Your task to perform on an android device: Open accessibility settings Image 0: 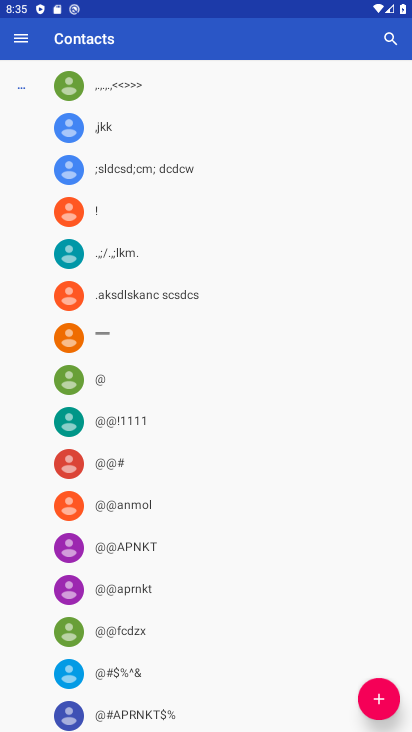
Step 0: press home button
Your task to perform on an android device: Open accessibility settings Image 1: 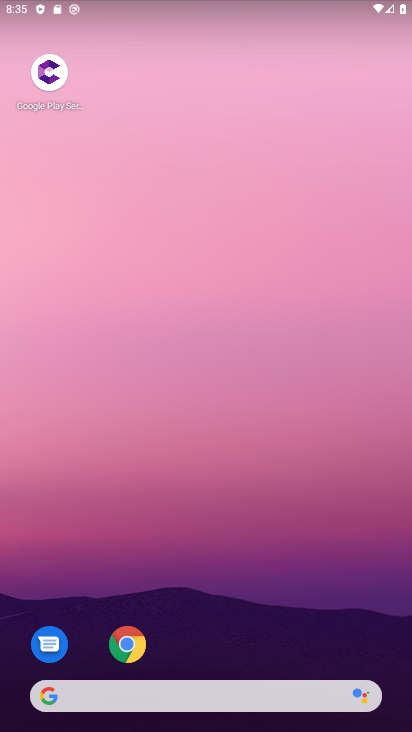
Step 1: drag from (200, 602) to (292, 85)
Your task to perform on an android device: Open accessibility settings Image 2: 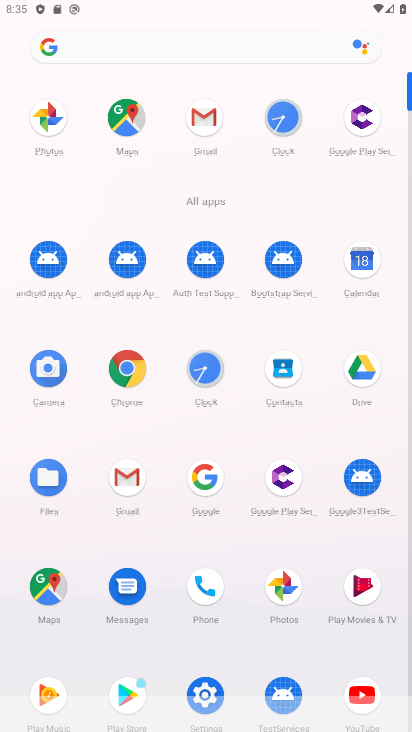
Step 2: click (204, 690)
Your task to perform on an android device: Open accessibility settings Image 3: 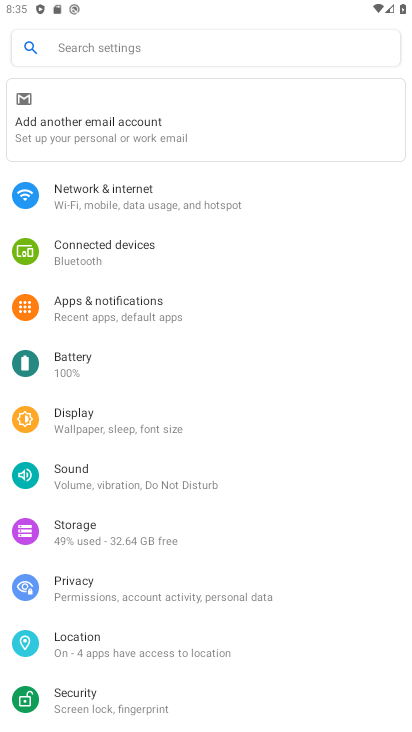
Step 3: drag from (196, 550) to (279, 158)
Your task to perform on an android device: Open accessibility settings Image 4: 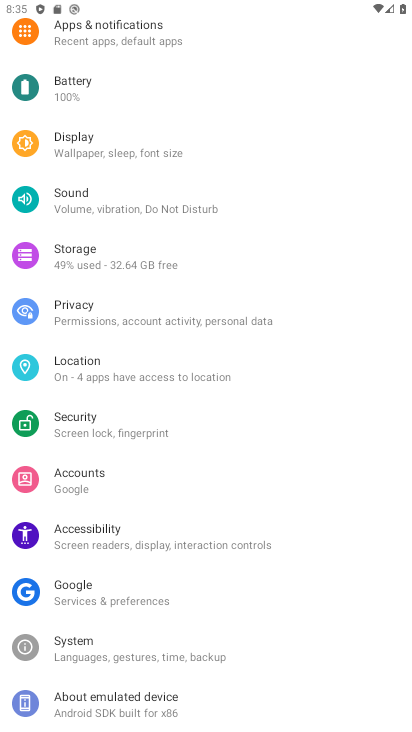
Step 4: click (173, 547)
Your task to perform on an android device: Open accessibility settings Image 5: 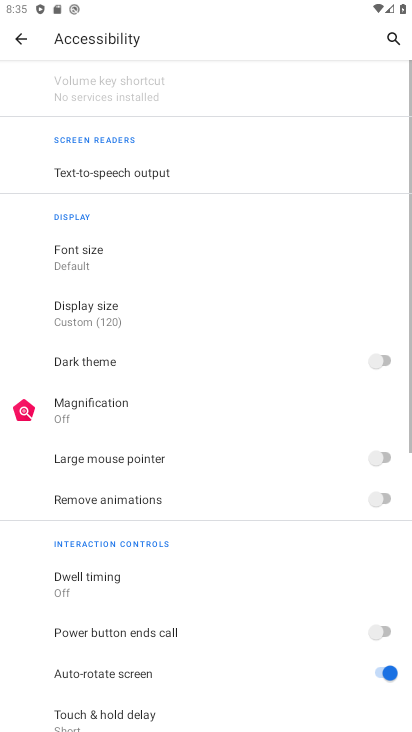
Step 5: task complete